Your task to perform on an android device: uninstall "Nova Launcher" Image 0: 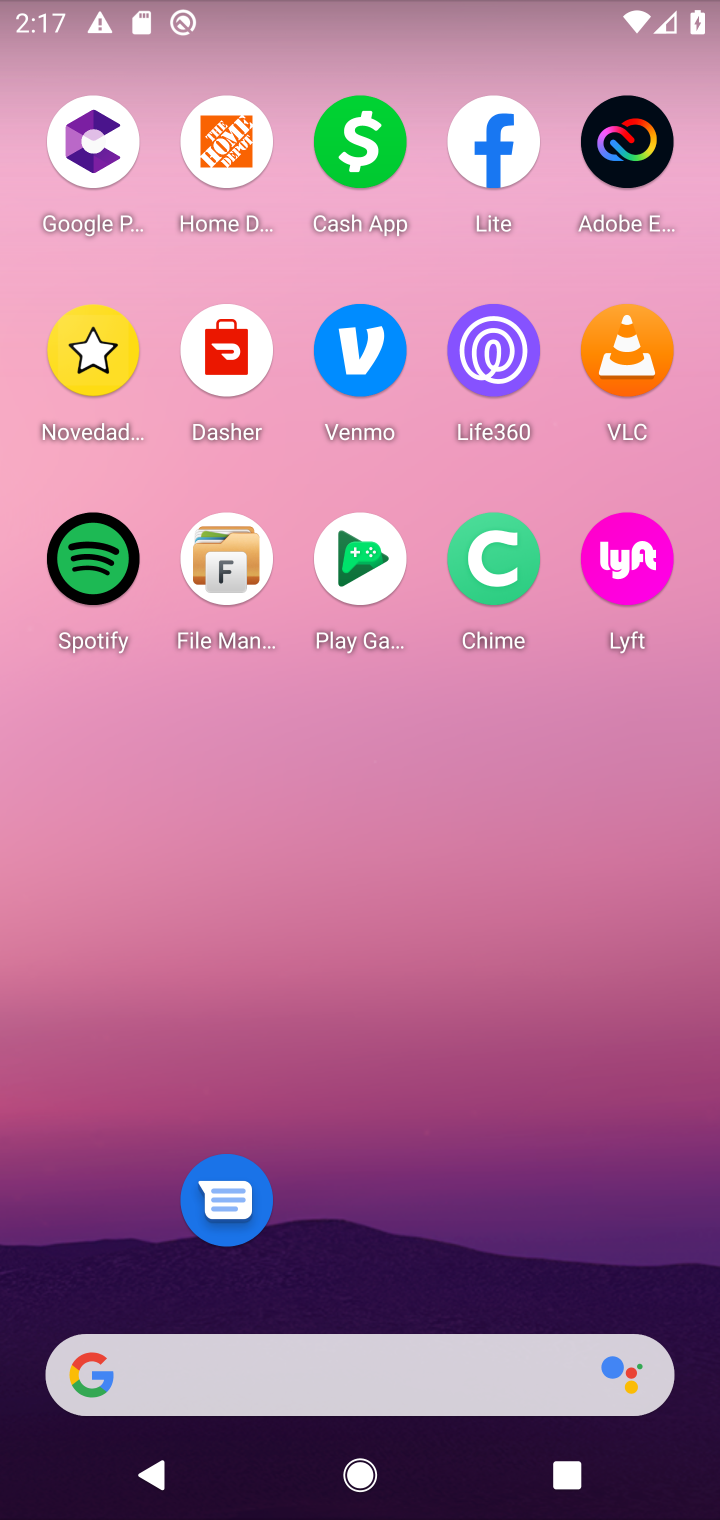
Step 0: drag from (507, 1210) to (497, 113)
Your task to perform on an android device: uninstall "Nova Launcher" Image 1: 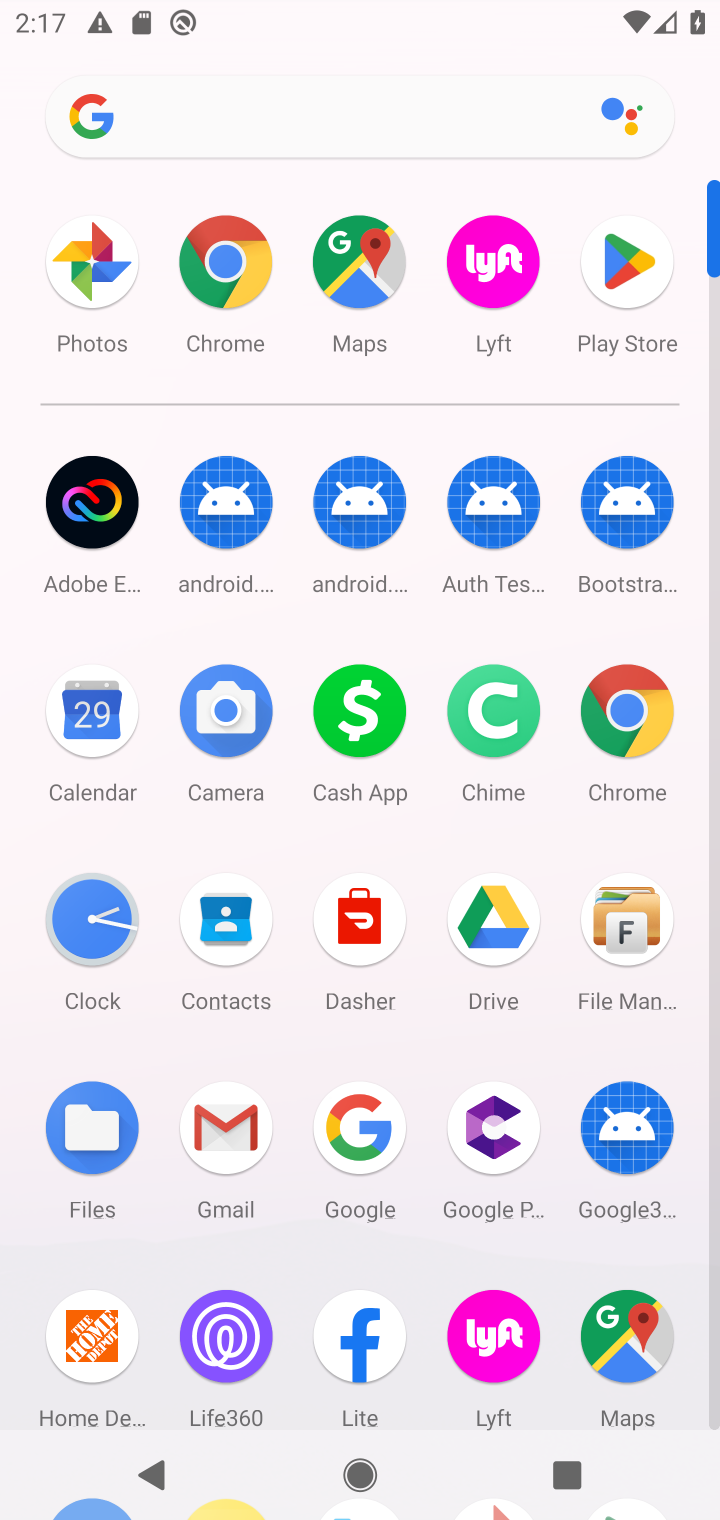
Step 1: drag from (557, 1269) to (582, 400)
Your task to perform on an android device: uninstall "Nova Launcher" Image 2: 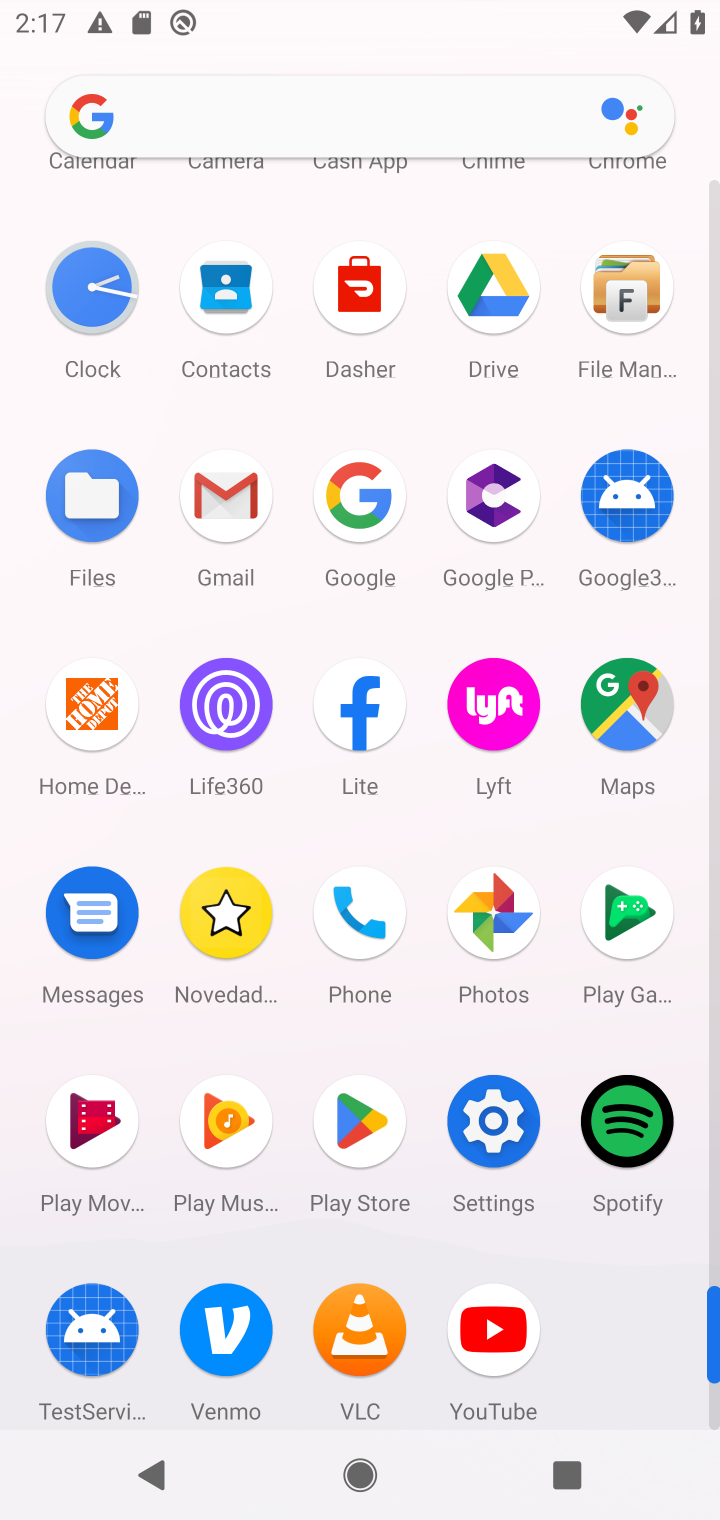
Step 2: click (371, 1130)
Your task to perform on an android device: uninstall "Nova Launcher" Image 3: 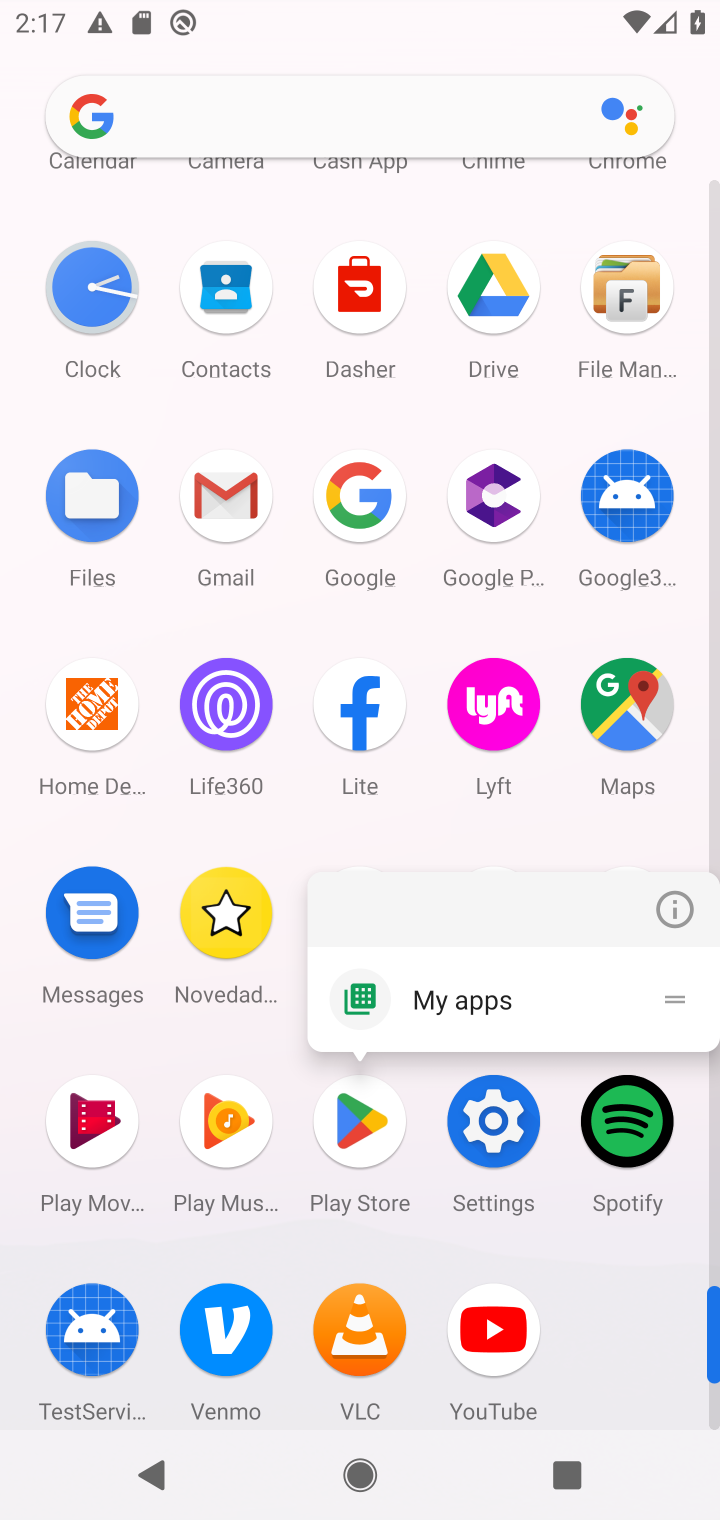
Step 3: click (369, 1119)
Your task to perform on an android device: uninstall "Nova Launcher" Image 4: 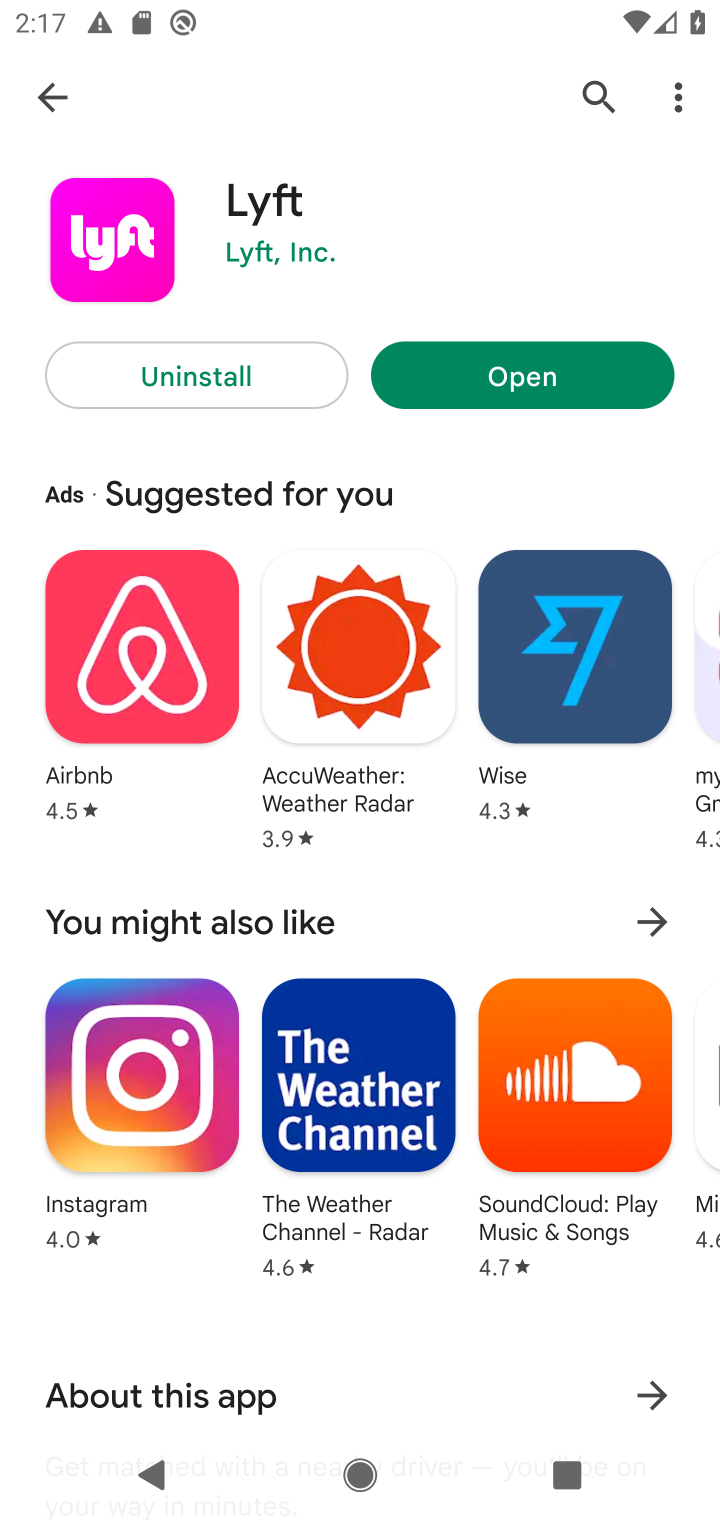
Step 4: click (597, 80)
Your task to perform on an android device: uninstall "Nova Launcher" Image 5: 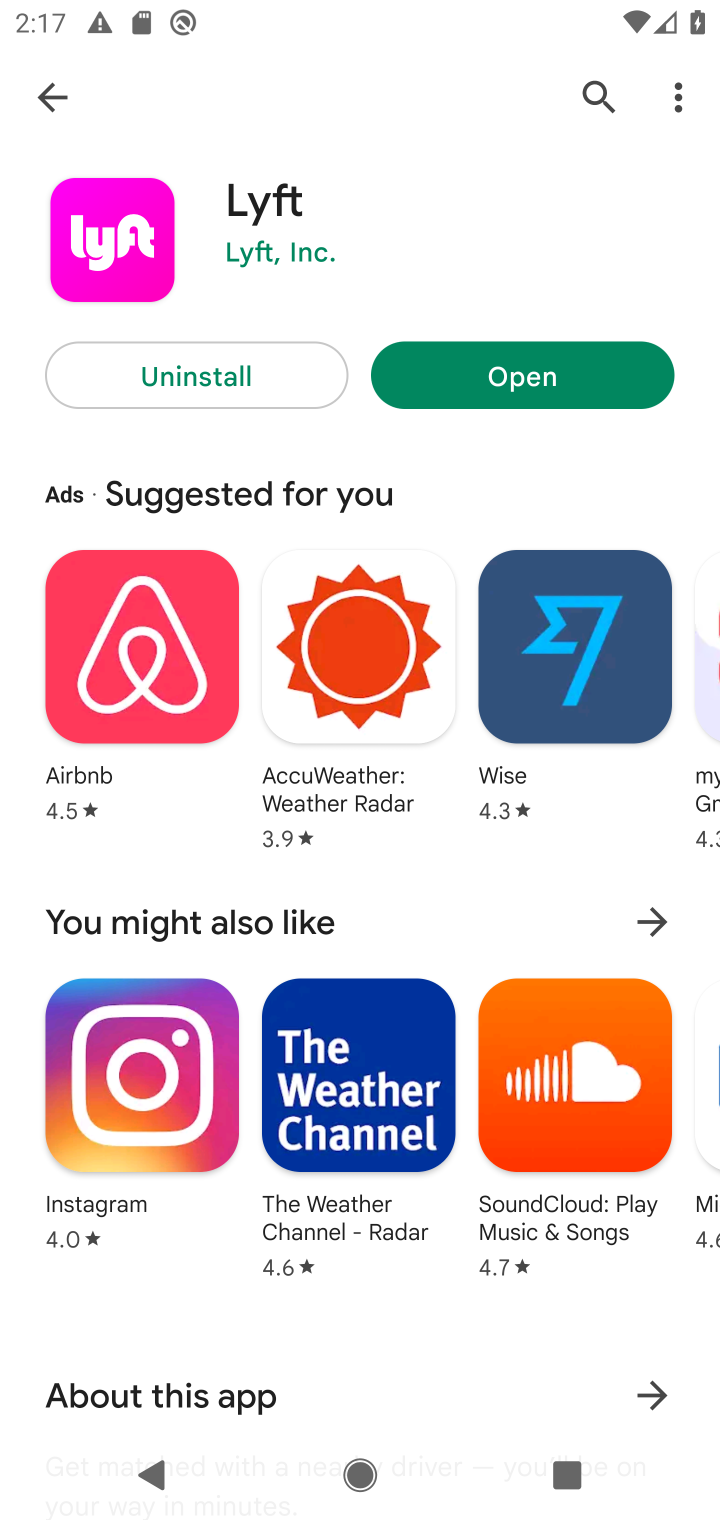
Step 5: press back button
Your task to perform on an android device: uninstall "Nova Launcher" Image 6: 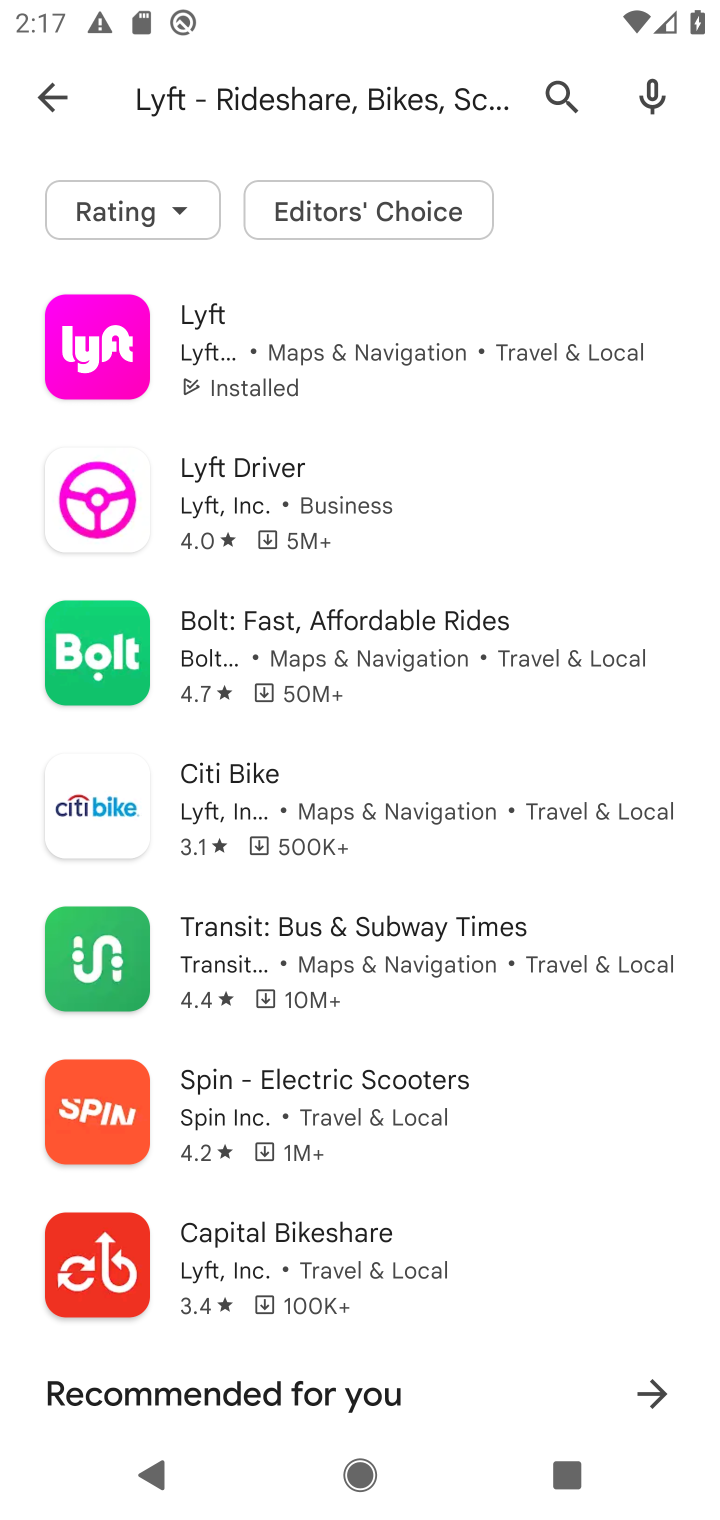
Step 6: click (396, 85)
Your task to perform on an android device: uninstall "Nova Launcher" Image 7: 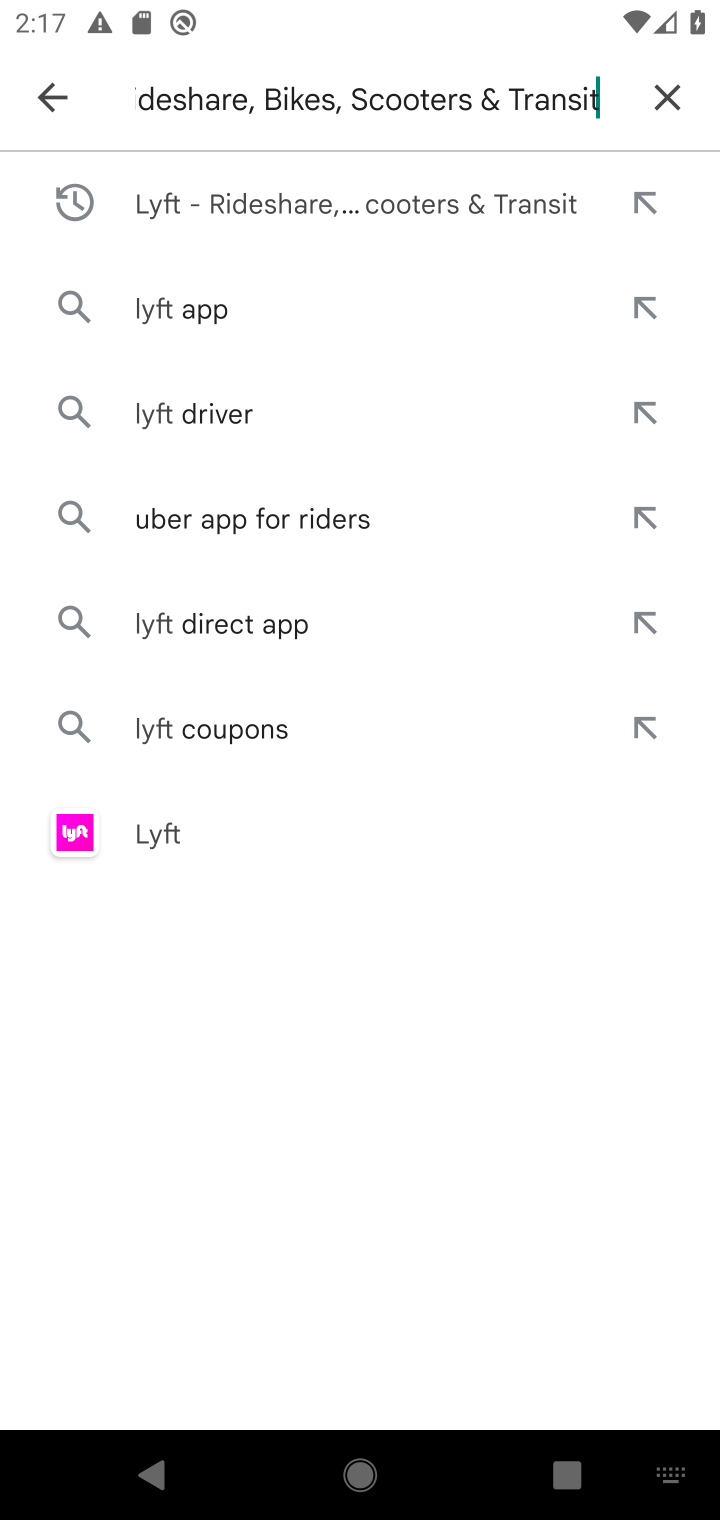
Step 7: click (662, 96)
Your task to perform on an android device: uninstall "Nova Launcher" Image 8: 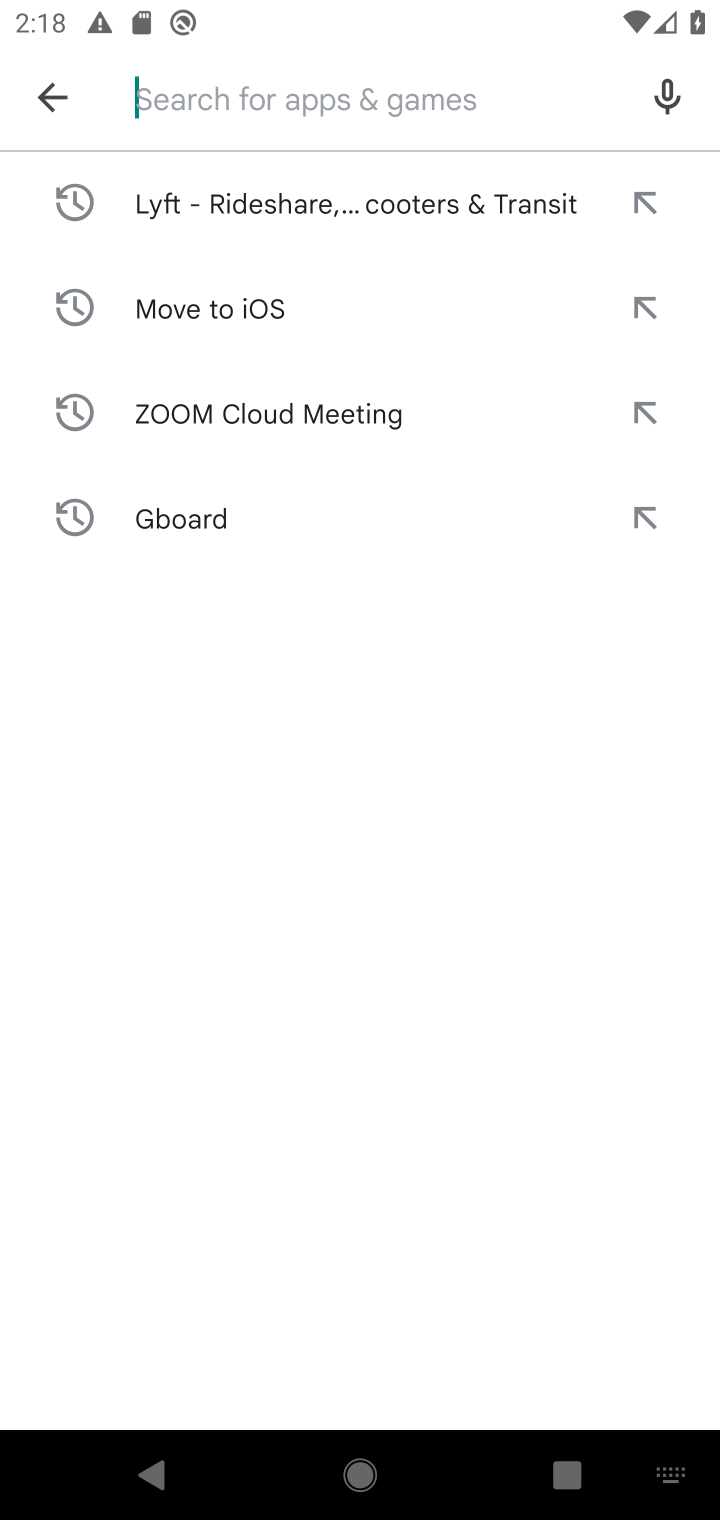
Step 8: type "Nova Launcher"
Your task to perform on an android device: uninstall "Nova Launcher" Image 9: 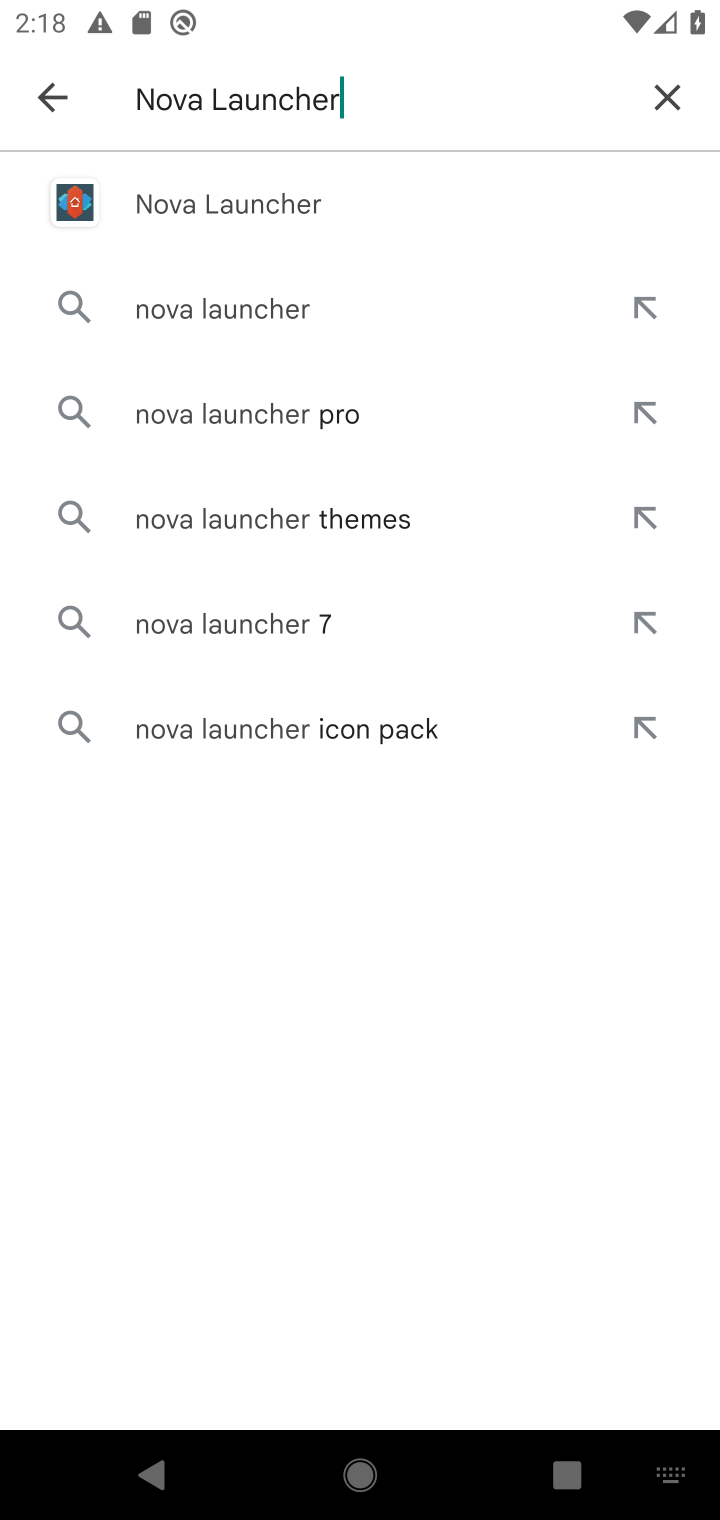
Step 9: press enter
Your task to perform on an android device: uninstall "Nova Launcher" Image 10: 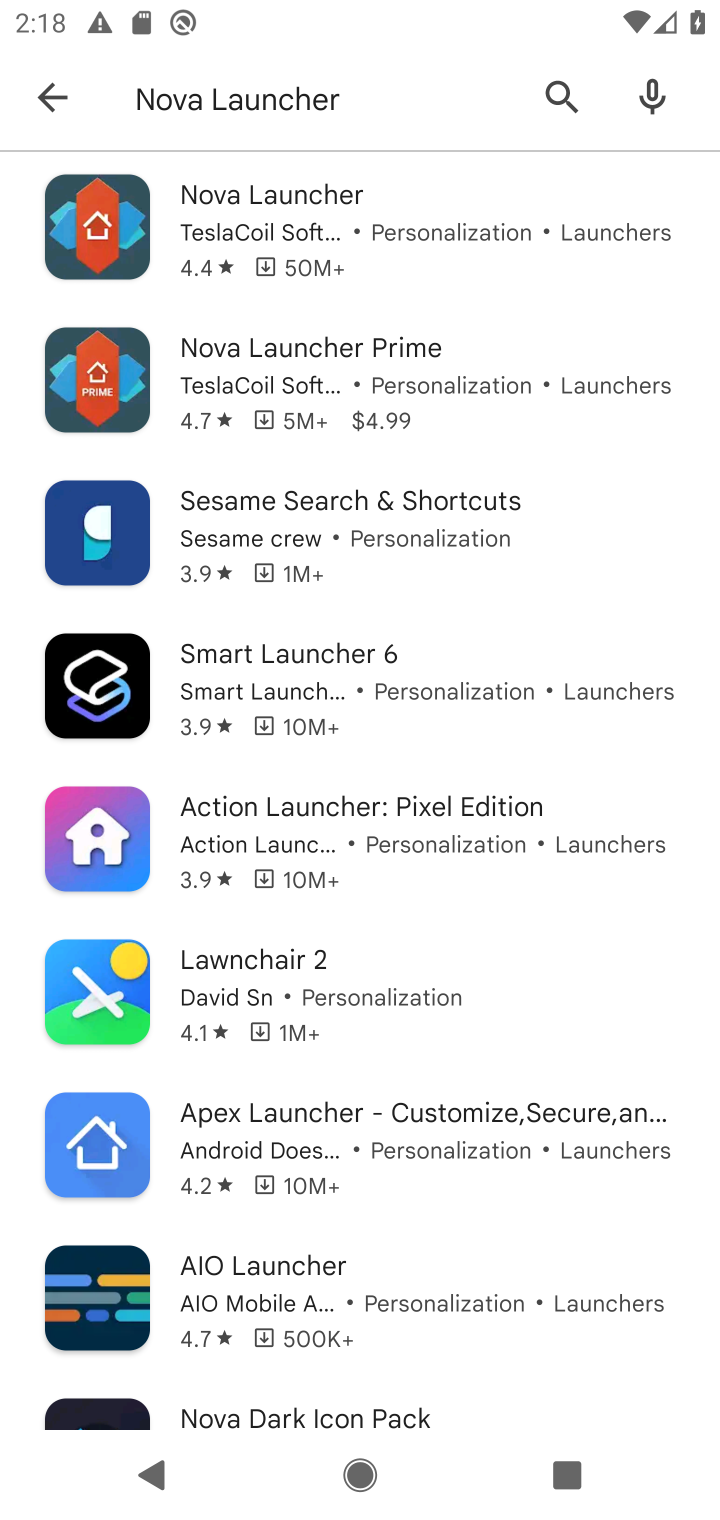
Step 10: click (377, 235)
Your task to perform on an android device: uninstall "Nova Launcher" Image 11: 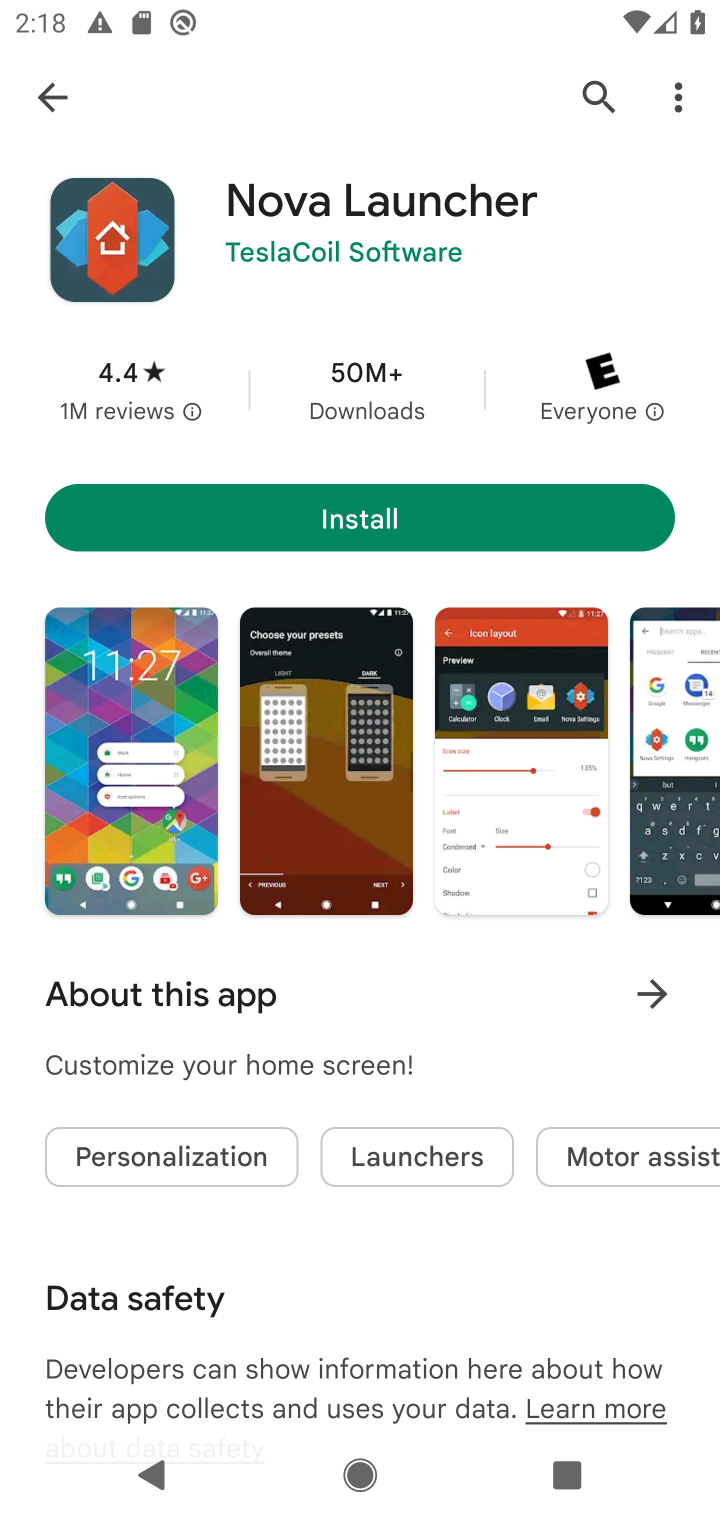
Step 11: task complete